Your task to perform on an android device: Show me popular videos on Youtube Image 0: 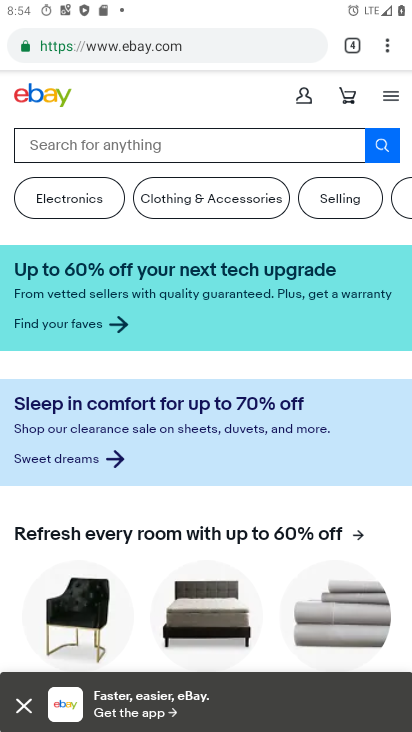
Step 0: press home button
Your task to perform on an android device: Show me popular videos on Youtube Image 1: 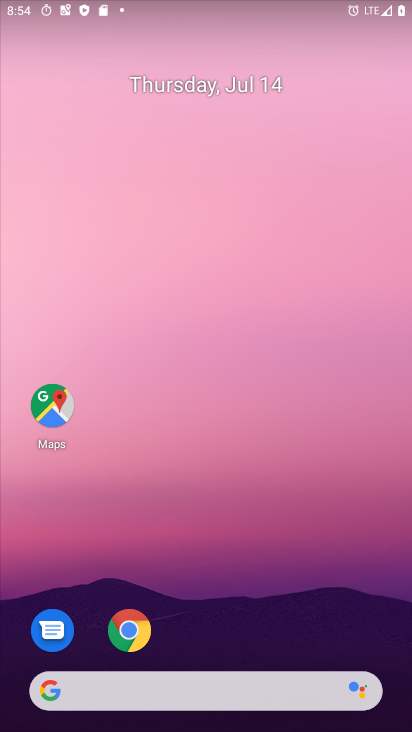
Step 1: drag from (217, 725) to (214, 205)
Your task to perform on an android device: Show me popular videos on Youtube Image 2: 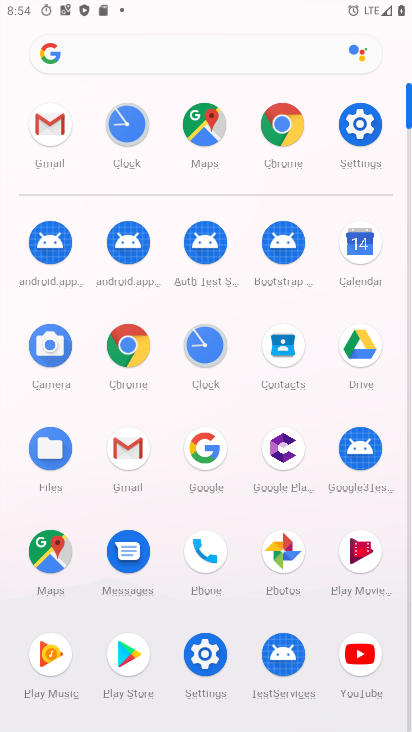
Step 2: click (361, 647)
Your task to perform on an android device: Show me popular videos on Youtube Image 3: 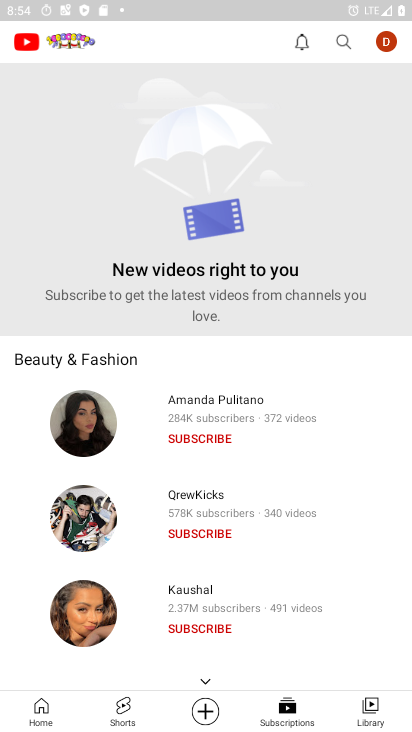
Step 3: click (38, 706)
Your task to perform on an android device: Show me popular videos on Youtube Image 4: 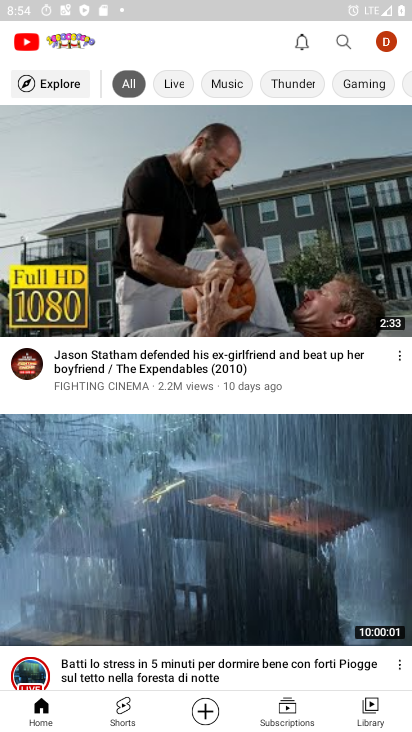
Step 4: click (344, 39)
Your task to perform on an android device: Show me popular videos on Youtube Image 5: 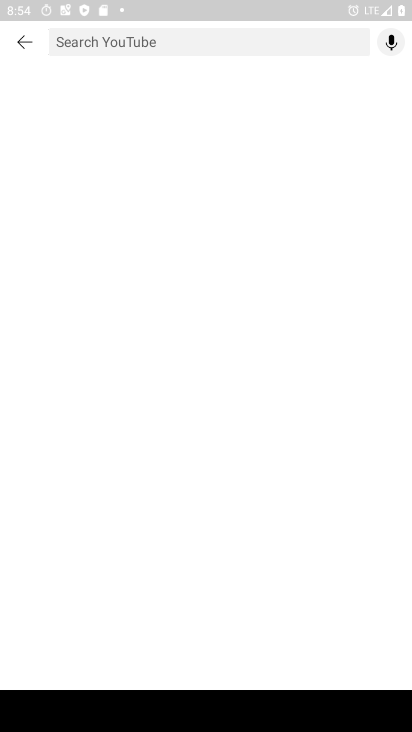
Step 5: type "popular videos on youtube"
Your task to perform on an android device: Show me popular videos on Youtube Image 6: 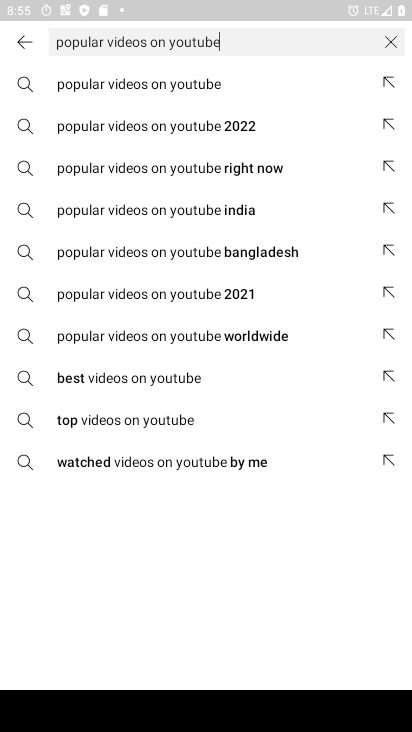
Step 6: click (164, 80)
Your task to perform on an android device: Show me popular videos on Youtube Image 7: 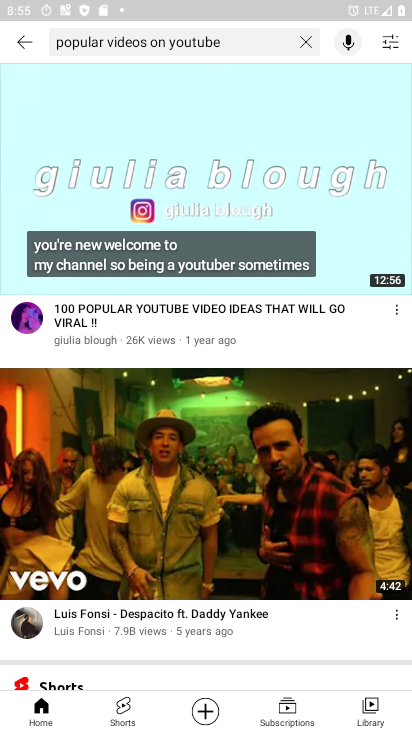
Step 7: task complete